Your task to perform on an android device: turn off location Image 0: 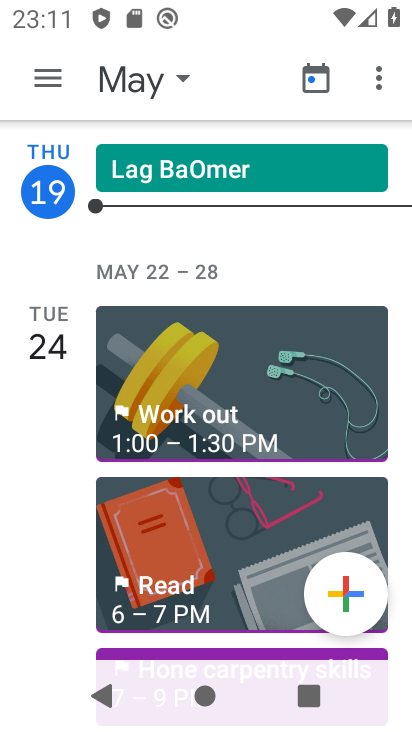
Step 0: press home button
Your task to perform on an android device: turn off location Image 1: 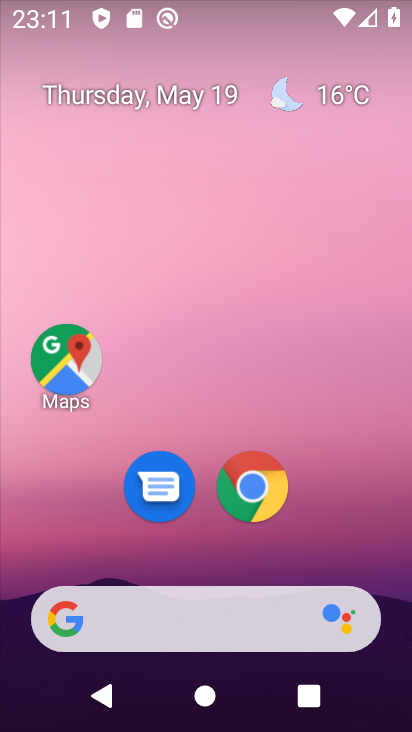
Step 1: drag from (279, 563) to (324, 102)
Your task to perform on an android device: turn off location Image 2: 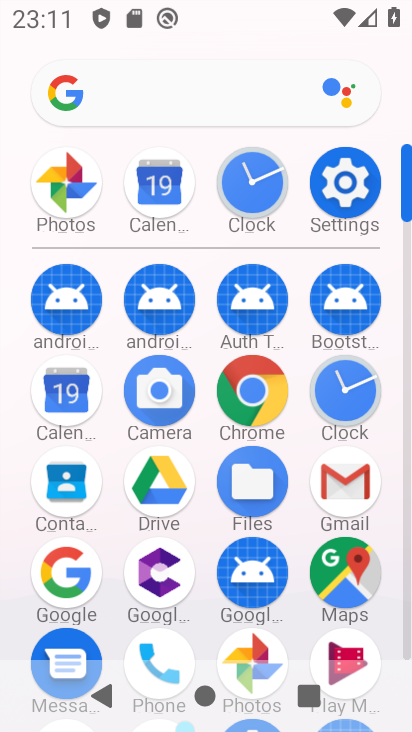
Step 2: click (363, 192)
Your task to perform on an android device: turn off location Image 3: 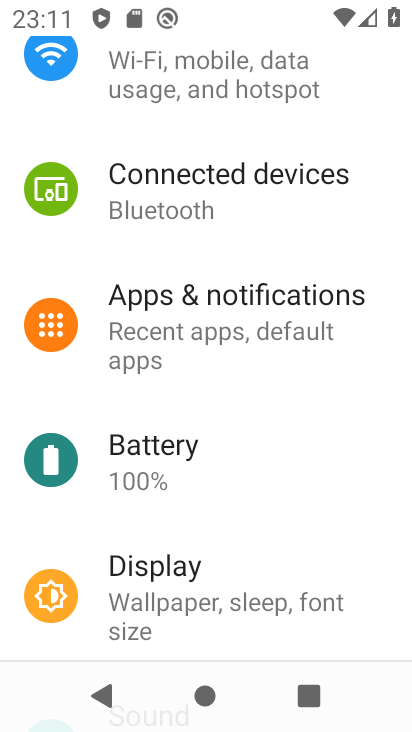
Step 3: drag from (186, 498) to (271, 176)
Your task to perform on an android device: turn off location Image 4: 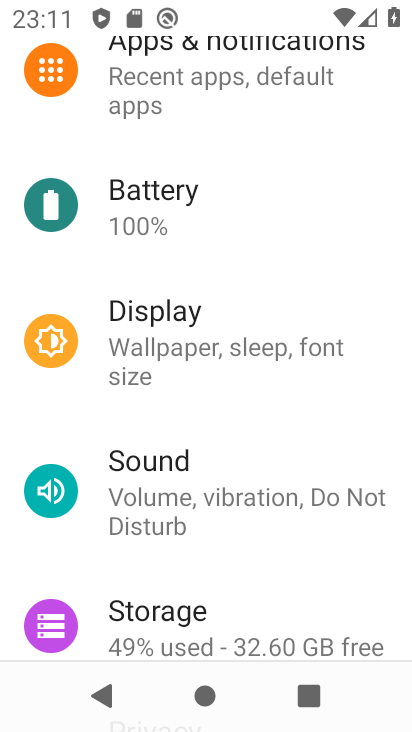
Step 4: drag from (212, 589) to (273, 399)
Your task to perform on an android device: turn off location Image 5: 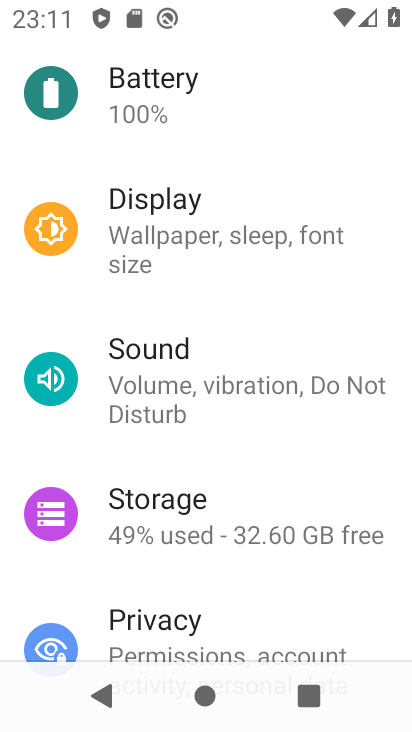
Step 5: drag from (212, 618) to (260, 408)
Your task to perform on an android device: turn off location Image 6: 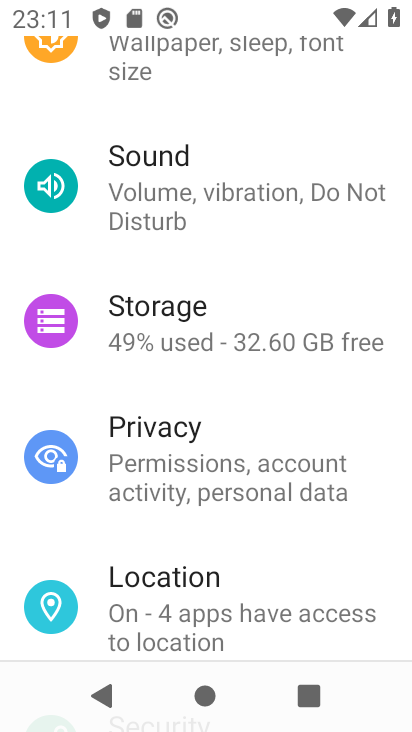
Step 6: click (222, 608)
Your task to perform on an android device: turn off location Image 7: 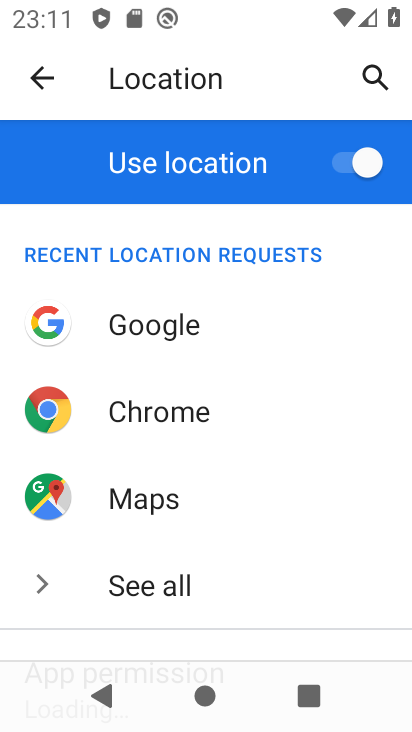
Step 7: click (361, 179)
Your task to perform on an android device: turn off location Image 8: 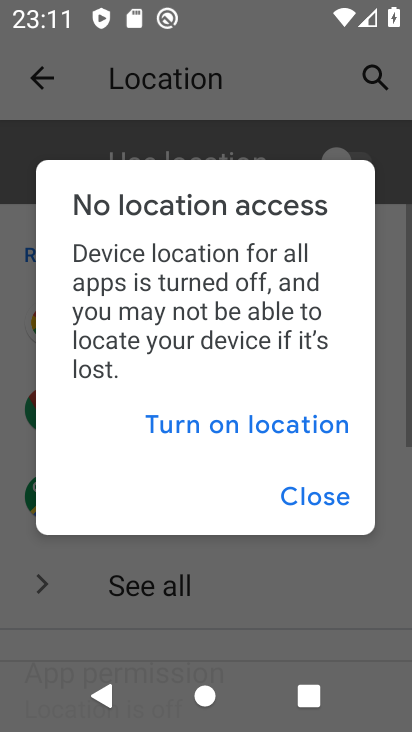
Step 8: task complete